Your task to perform on an android device: Clear all items from cart on walmart.com. Add "duracell triple a" to the cart on walmart.com Image 0: 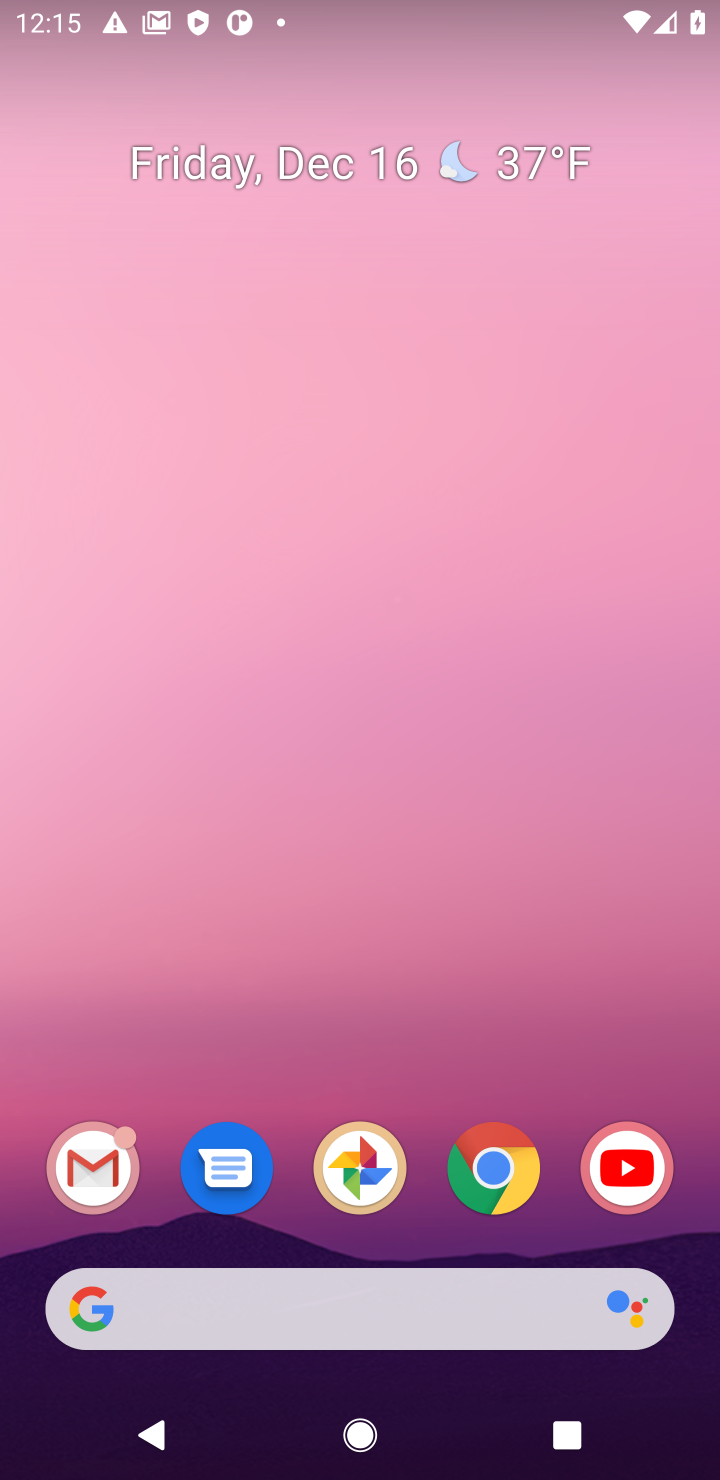
Step 0: click (513, 1138)
Your task to perform on an android device: Clear all items from cart on walmart.com. Add "duracell triple a" to the cart on walmart.com Image 1: 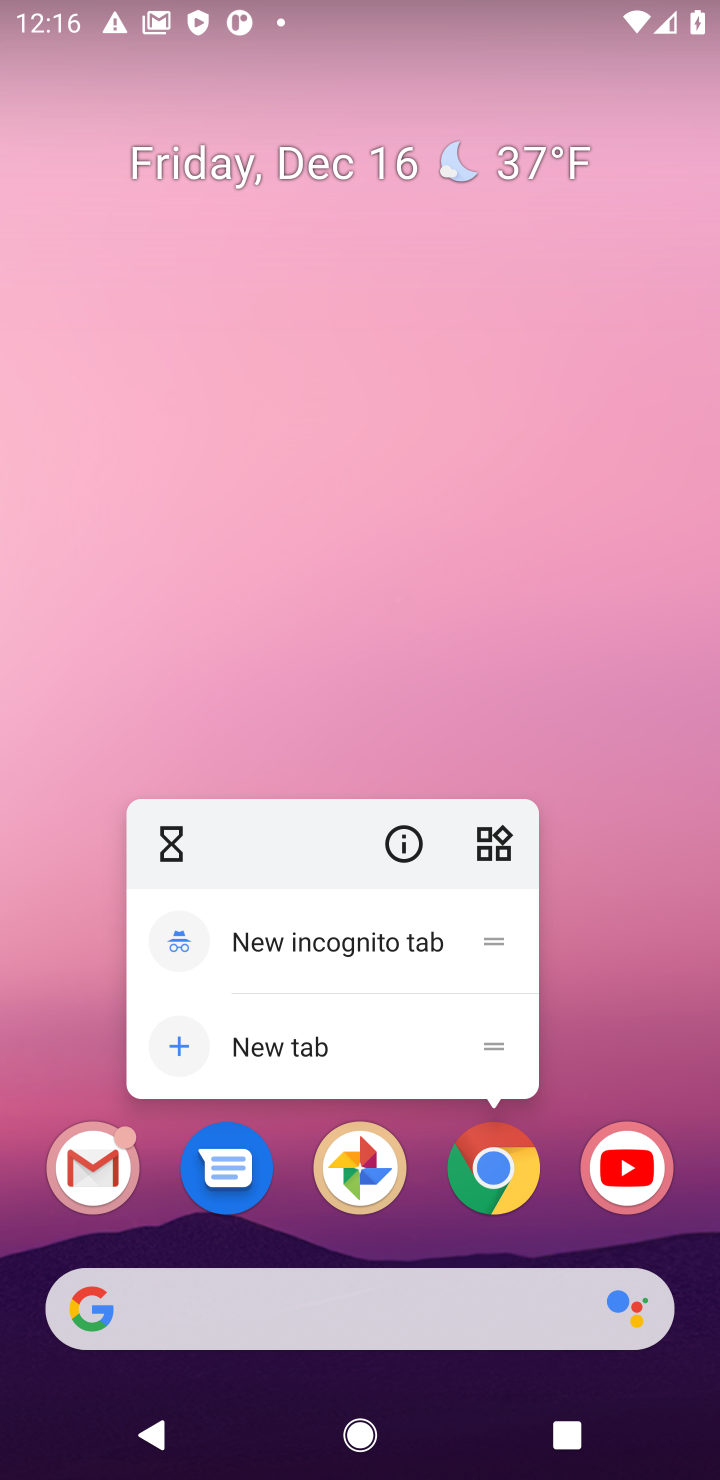
Step 1: click (510, 1151)
Your task to perform on an android device: Clear all items from cart on walmart.com. Add "duracell triple a" to the cart on walmart.com Image 2: 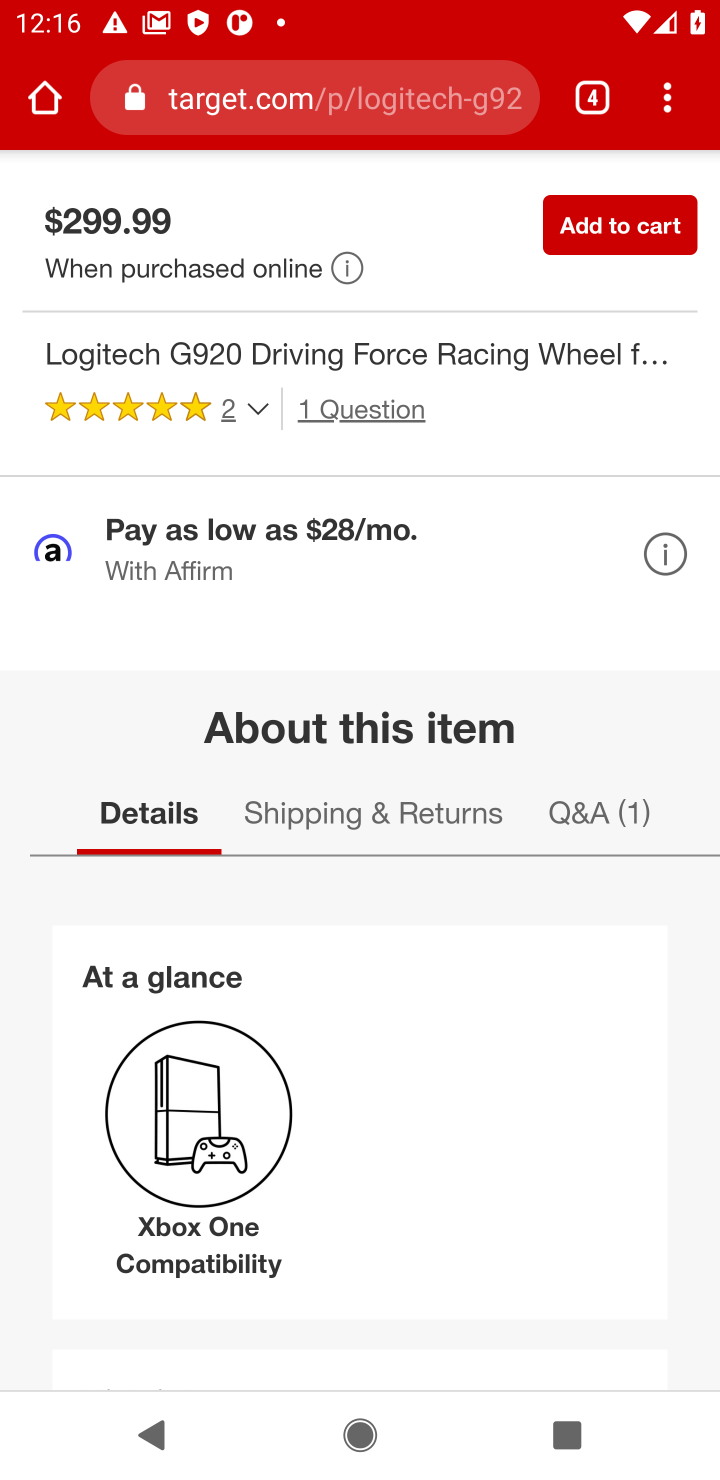
Step 2: click (369, 97)
Your task to perform on an android device: Clear all items from cart on walmart.com. Add "duracell triple a" to the cart on walmart.com Image 3: 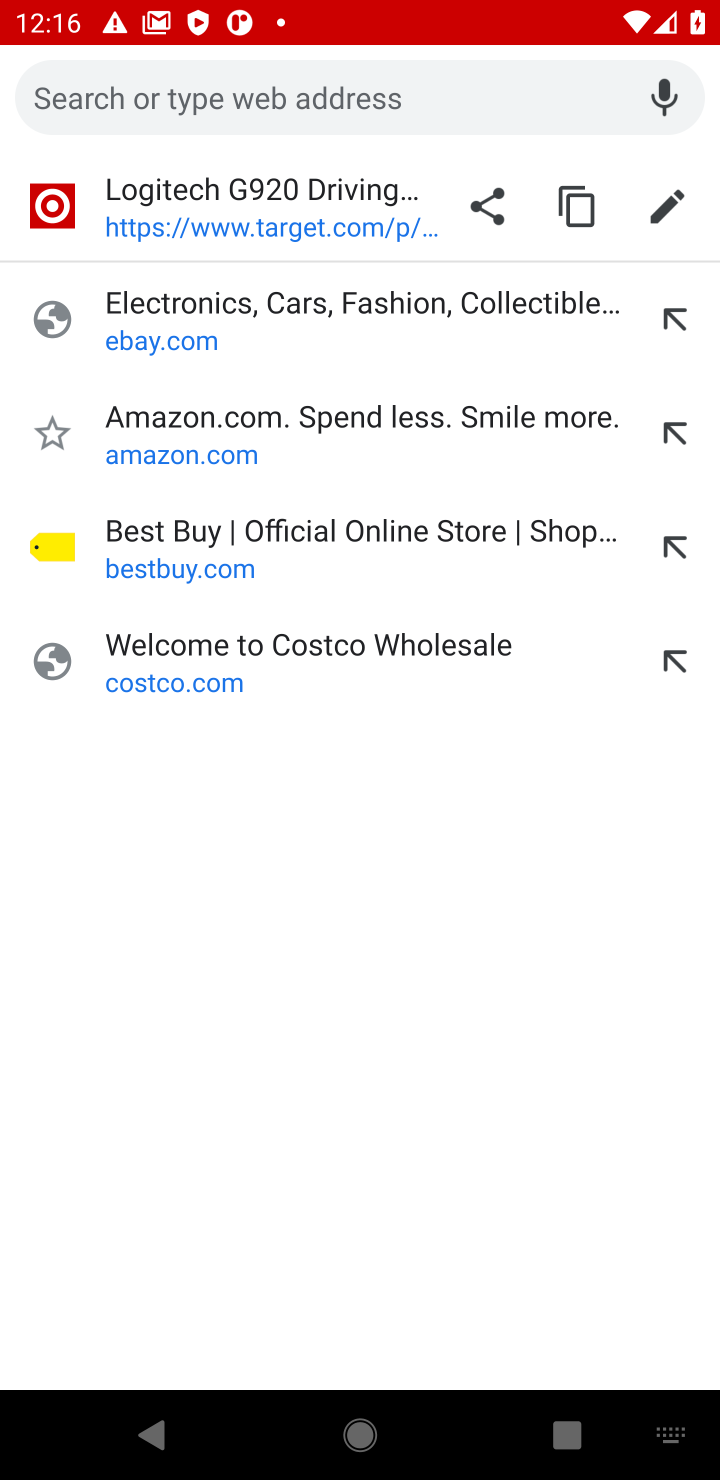
Step 3: type "walmart"
Your task to perform on an android device: Clear all items from cart on walmart.com. Add "duracell triple a" to the cart on walmart.com Image 4: 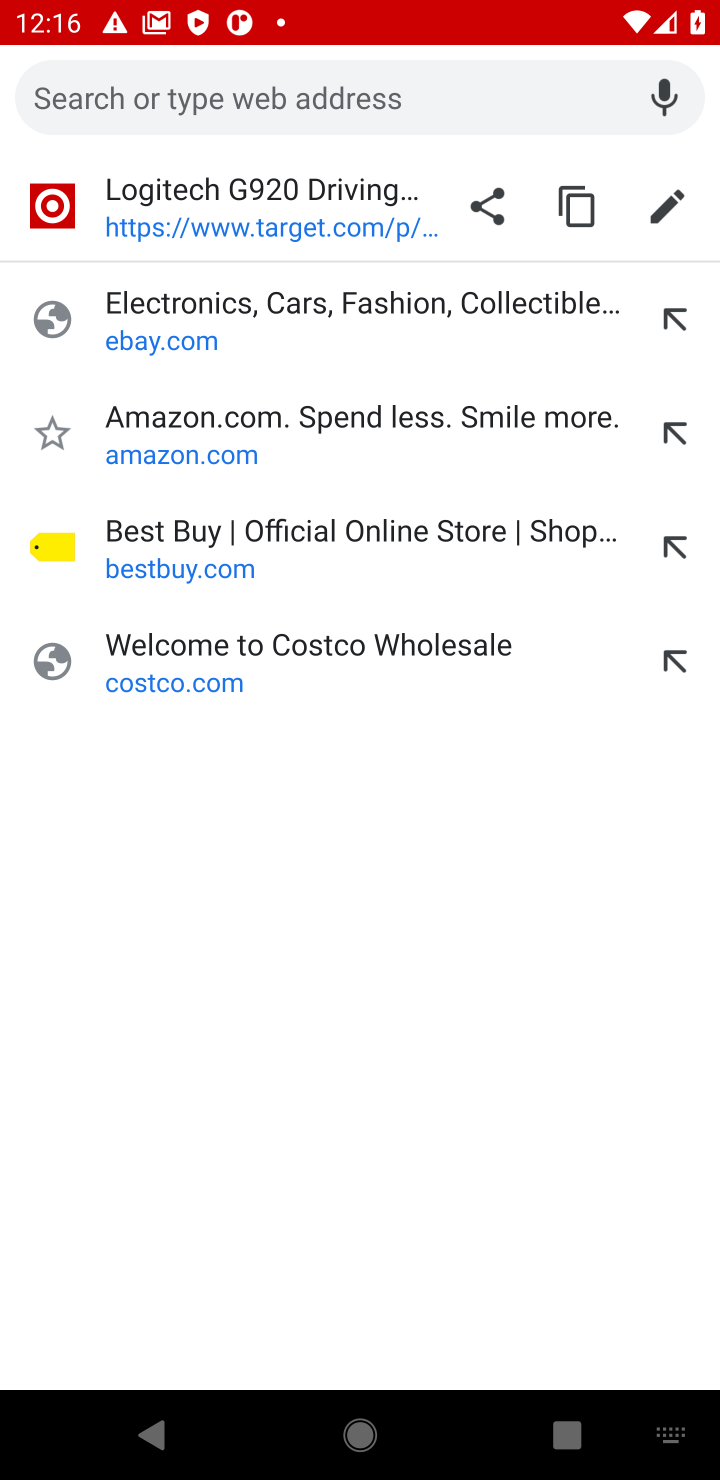
Step 4: click (239, 98)
Your task to perform on an android device: Clear all items from cart on walmart.com. Add "duracell triple a" to the cart on walmart.com Image 5: 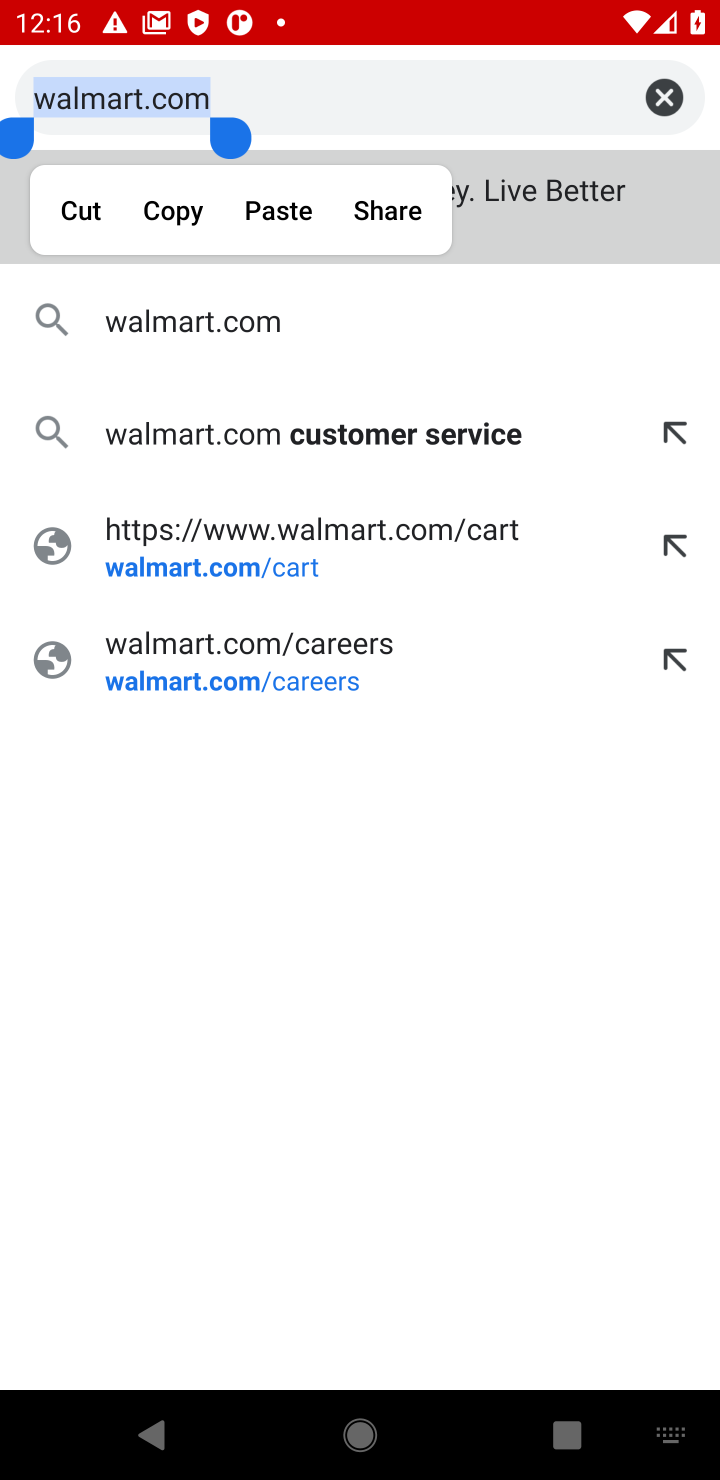
Step 5: click (406, 208)
Your task to perform on an android device: Clear all items from cart on walmart.com. Add "duracell triple a" to the cart on walmart.com Image 6: 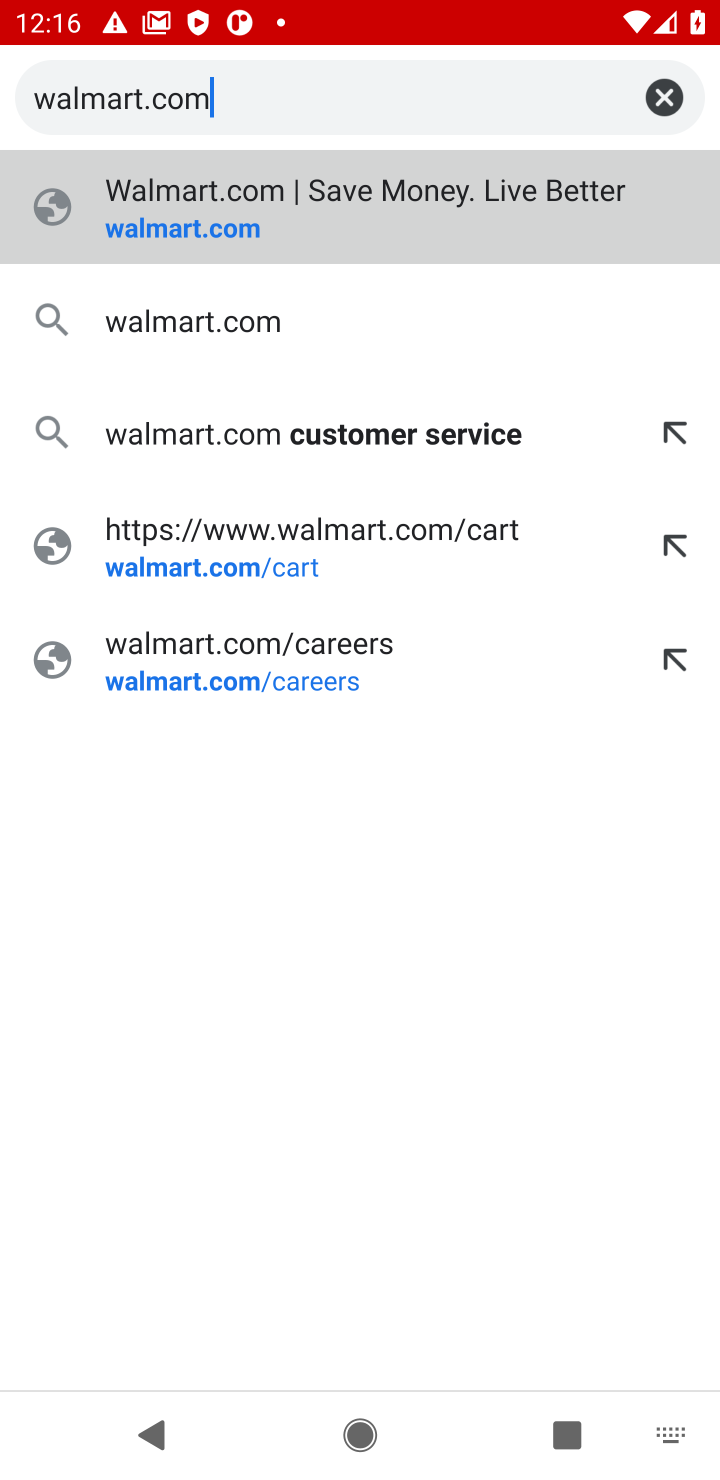
Step 6: click (610, 224)
Your task to perform on an android device: Clear all items from cart on walmart.com. Add "duracell triple a" to the cart on walmart.com Image 7: 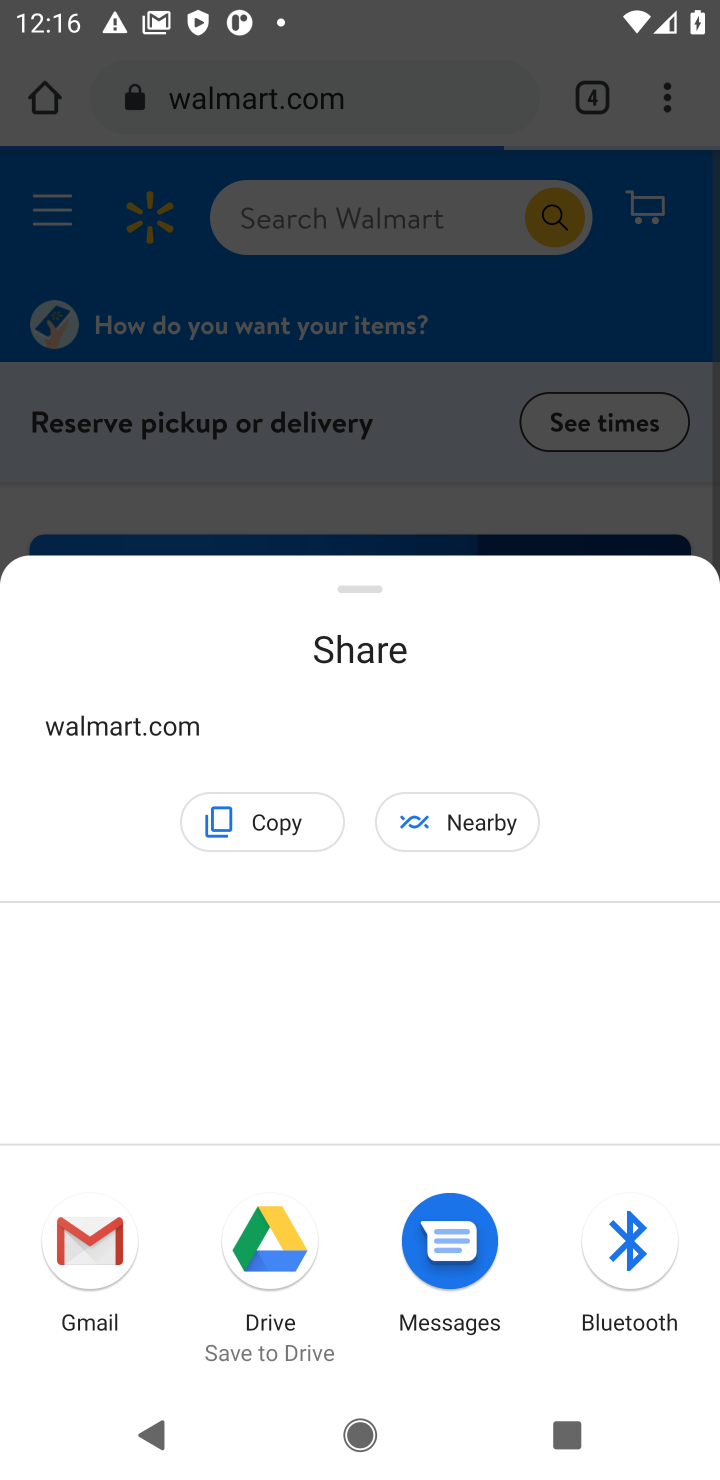
Step 7: click (512, 415)
Your task to perform on an android device: Clear all items from cart on walmart.com. Add "duracell triple a" to the cart on walmart.com Image 8: 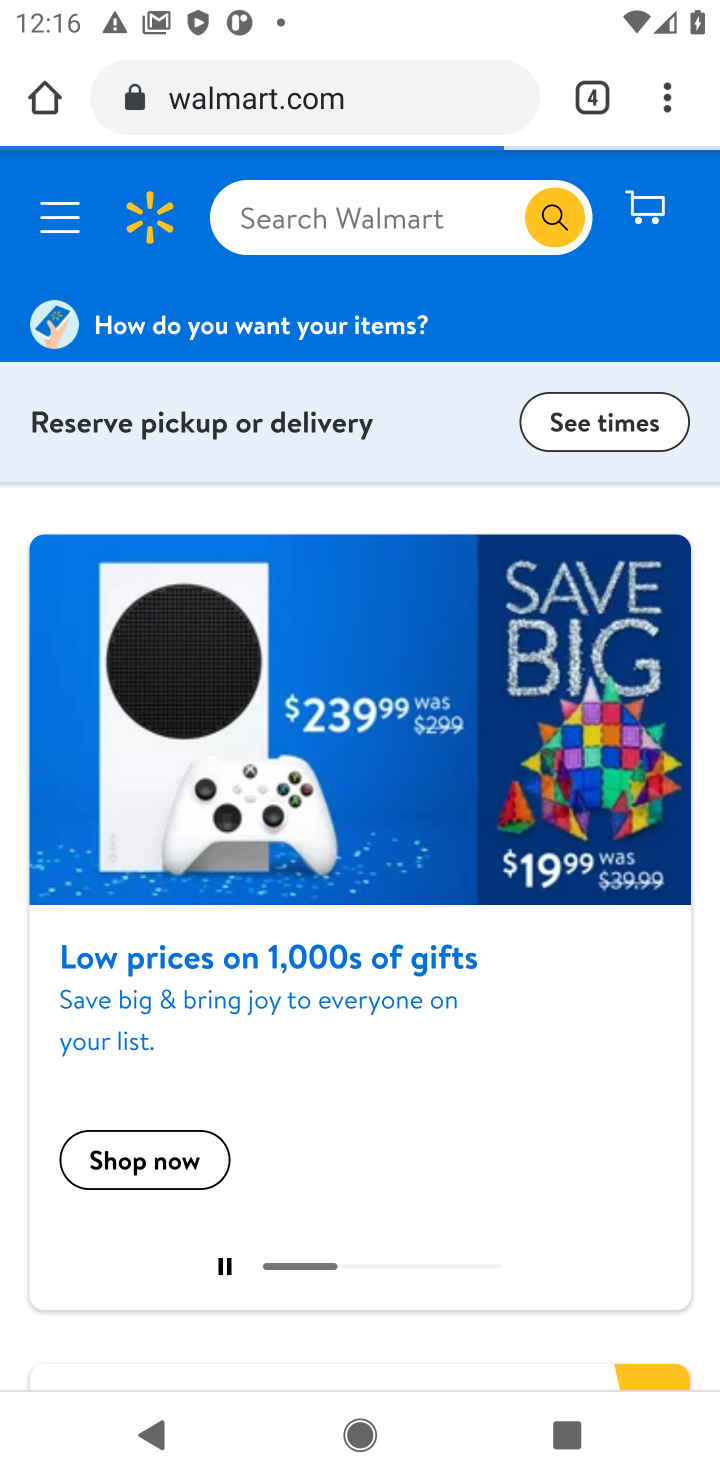
Step 8: click (403, 223)
Your task to perform on an android device: Clear all items from cart on walmart.com. Add "duracell triple a" to the cart on walmart.com Image 9: 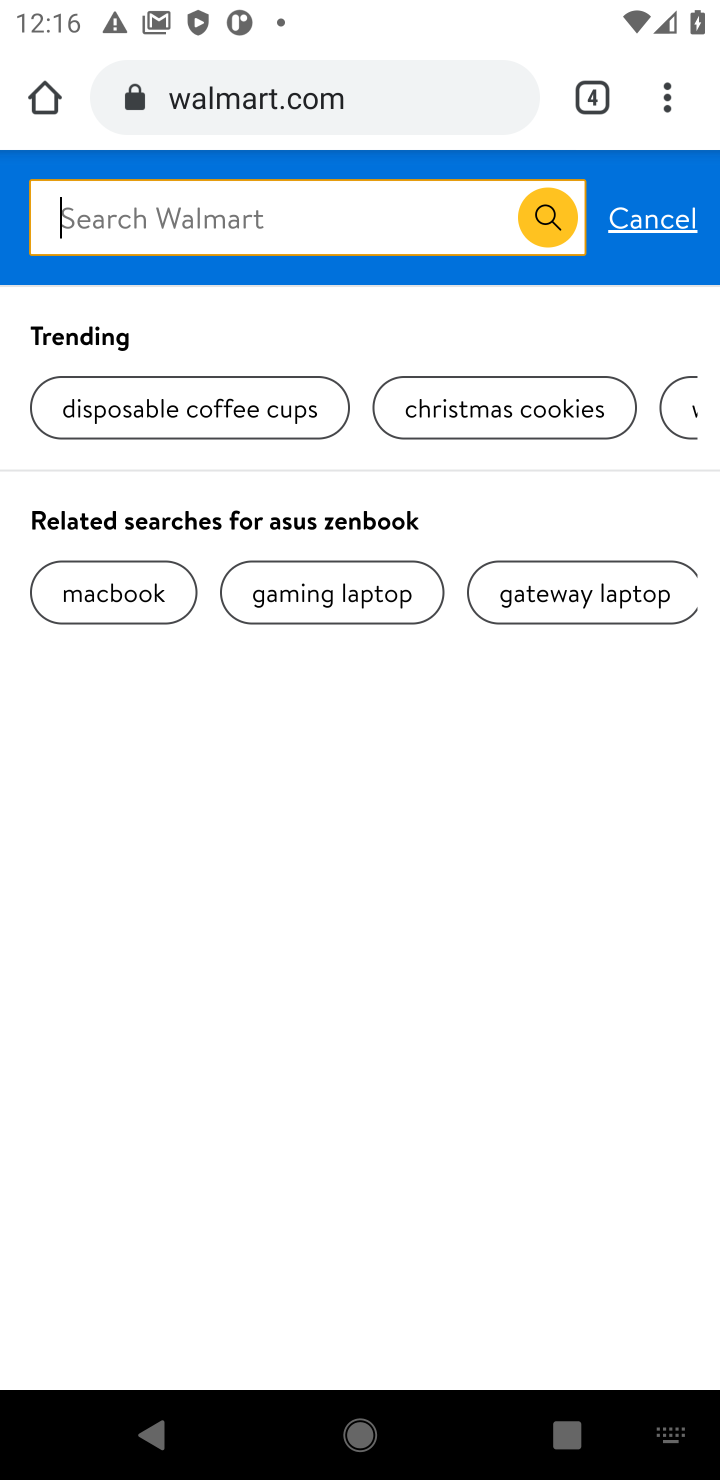
Step 9: click (647, 213)
Your task to perform on an android device: Clear all items from cart on walmart.com. Add "duracell triple a" to the cart on walmart.com Image 10: 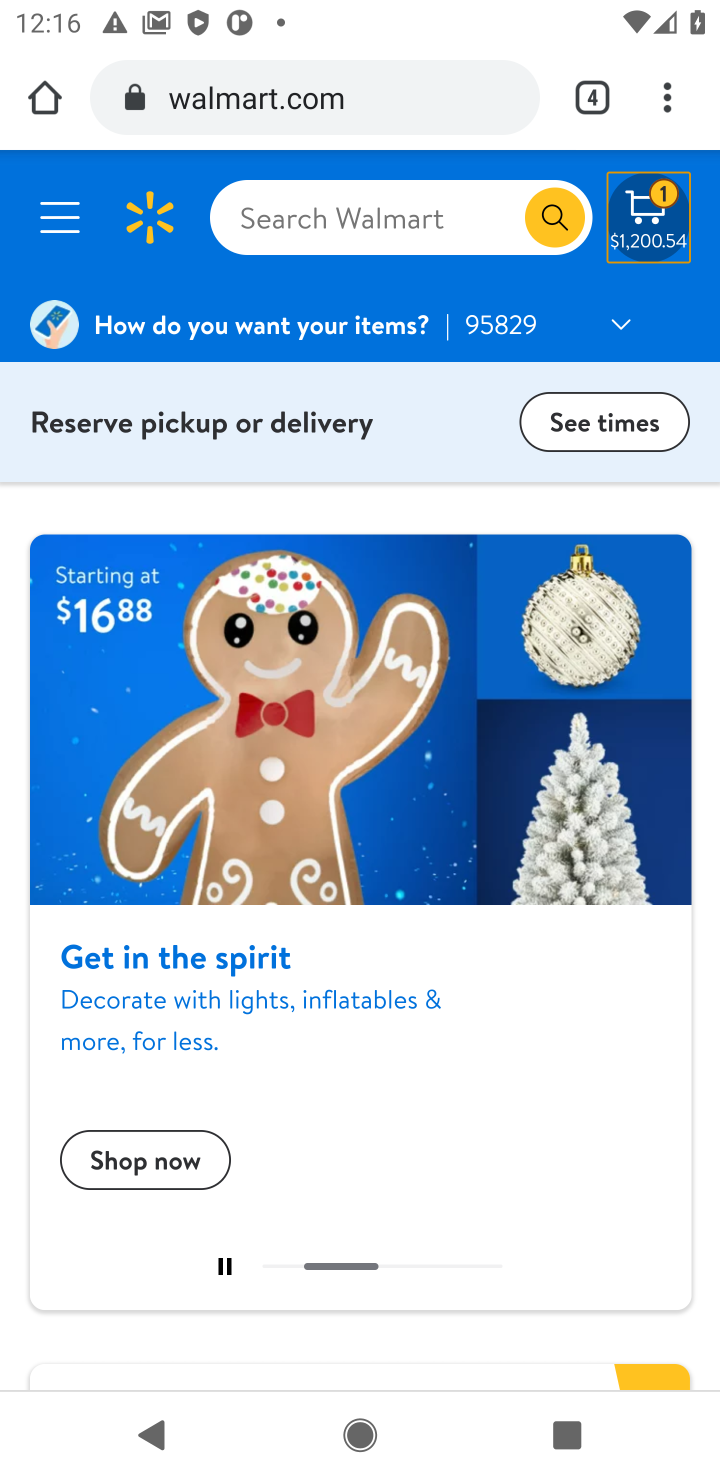
Step 10: click (658, 223)
Your task to perform on an android device: Clear all items from cart on walmart.com. Add "duracell triple a" to the cart on walmart.com Image 11: 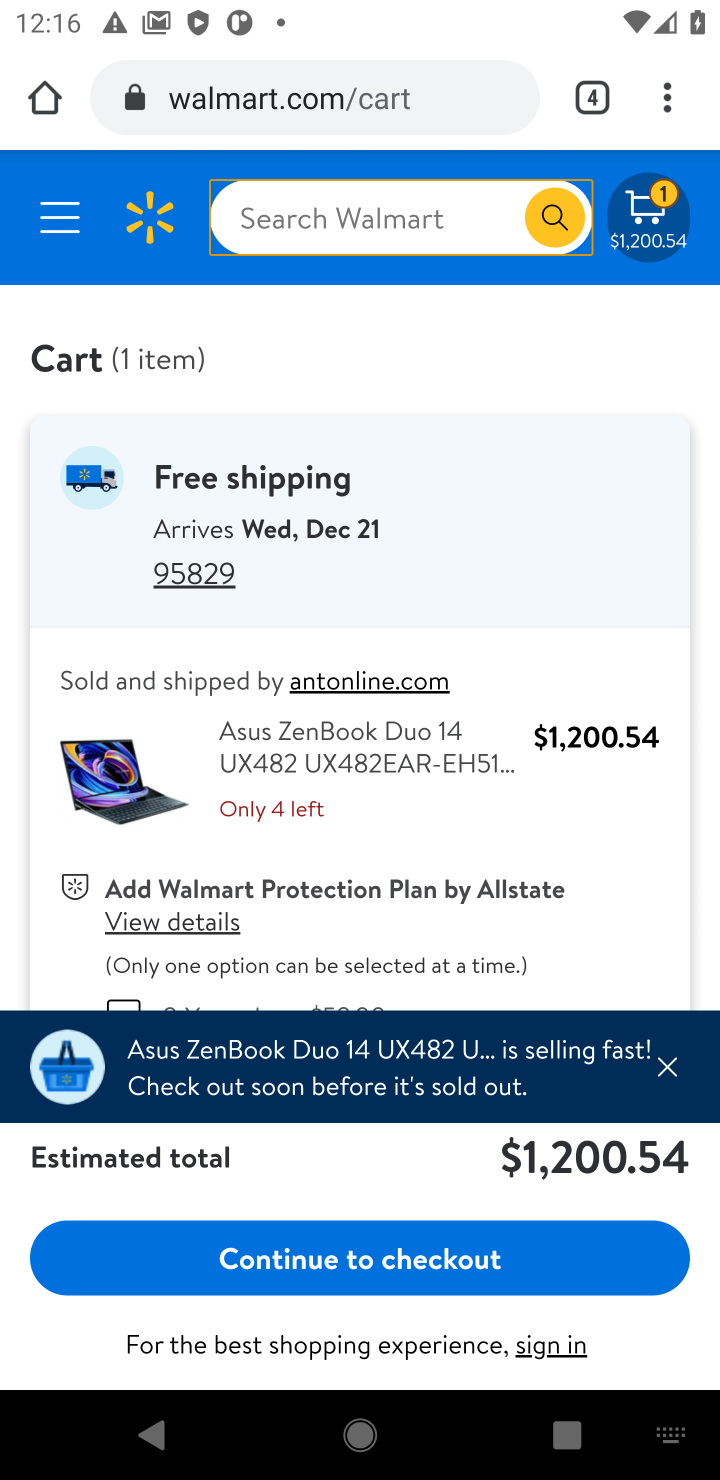
Step 11: drag from (328, 967) to (259, 578)
Your task to perform on an android device: Clear all items from cart on walmart.com. Add "duracell triple a" to the cart on walmart.com Image 12: 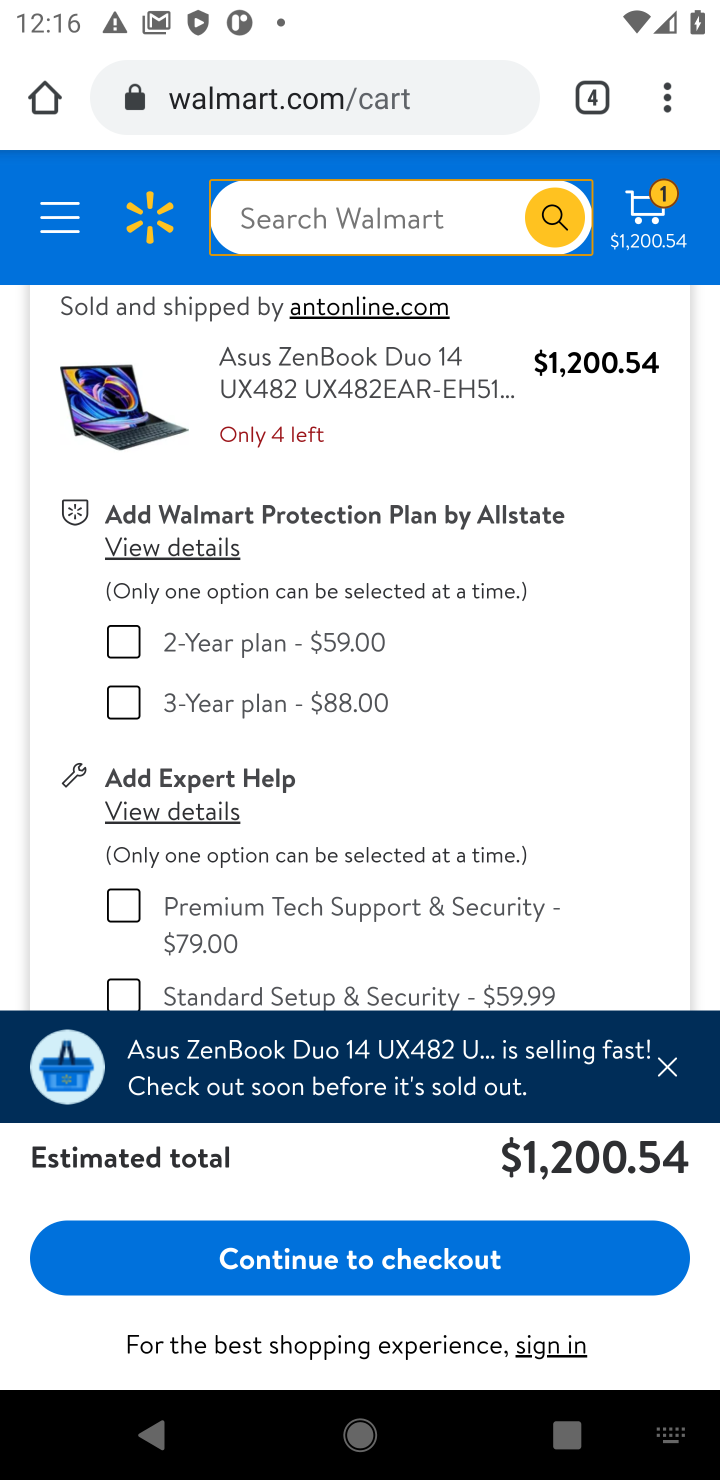
Step 12: drag from (397, 859) to (303, 270)
Your task to perform on an android device: Clear all items from cart on walmart.com. Add "duracell triple a" to the cart on walmart.com Image 13: 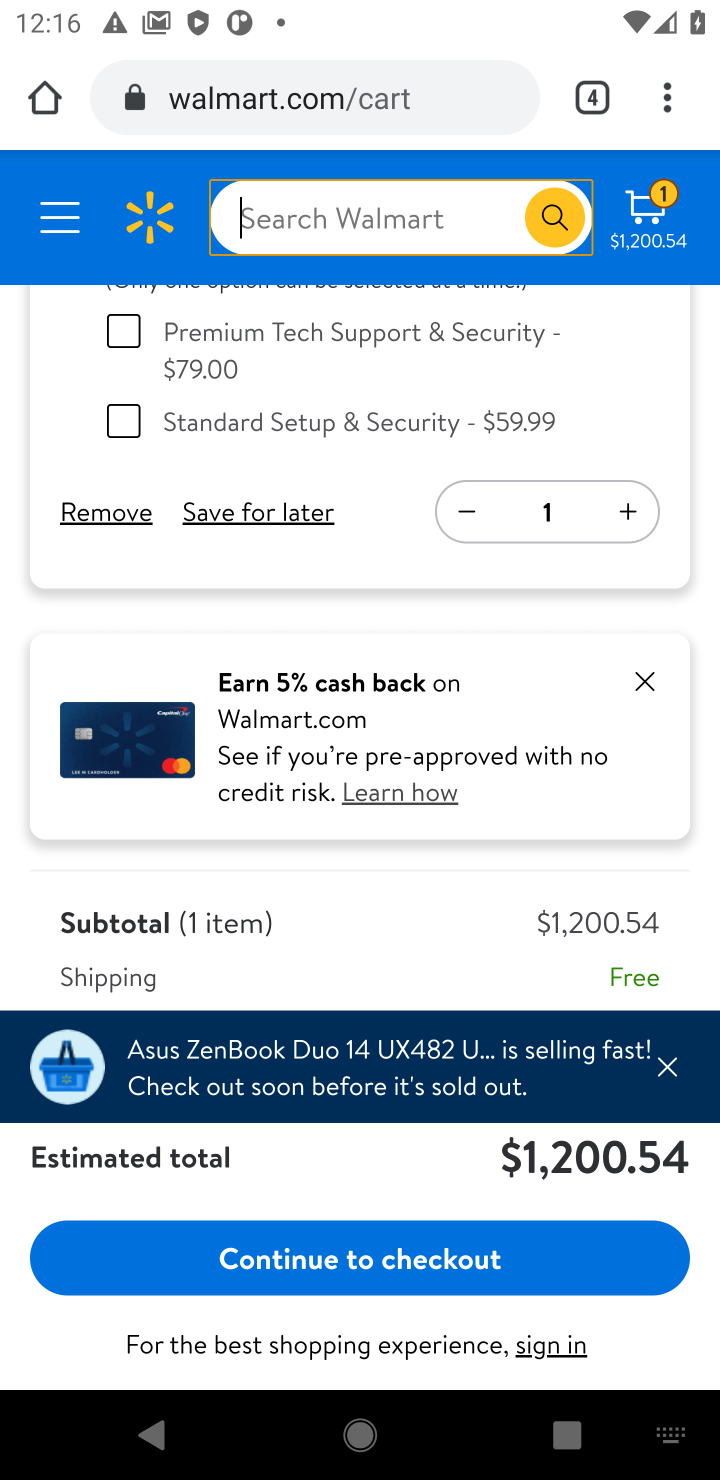
Step 13: click (90, 515)
Your task to perform on an android device: Clear all items from cart on walmart.com. Add "duracell triple a" to the cart on walmart.com Image 14: 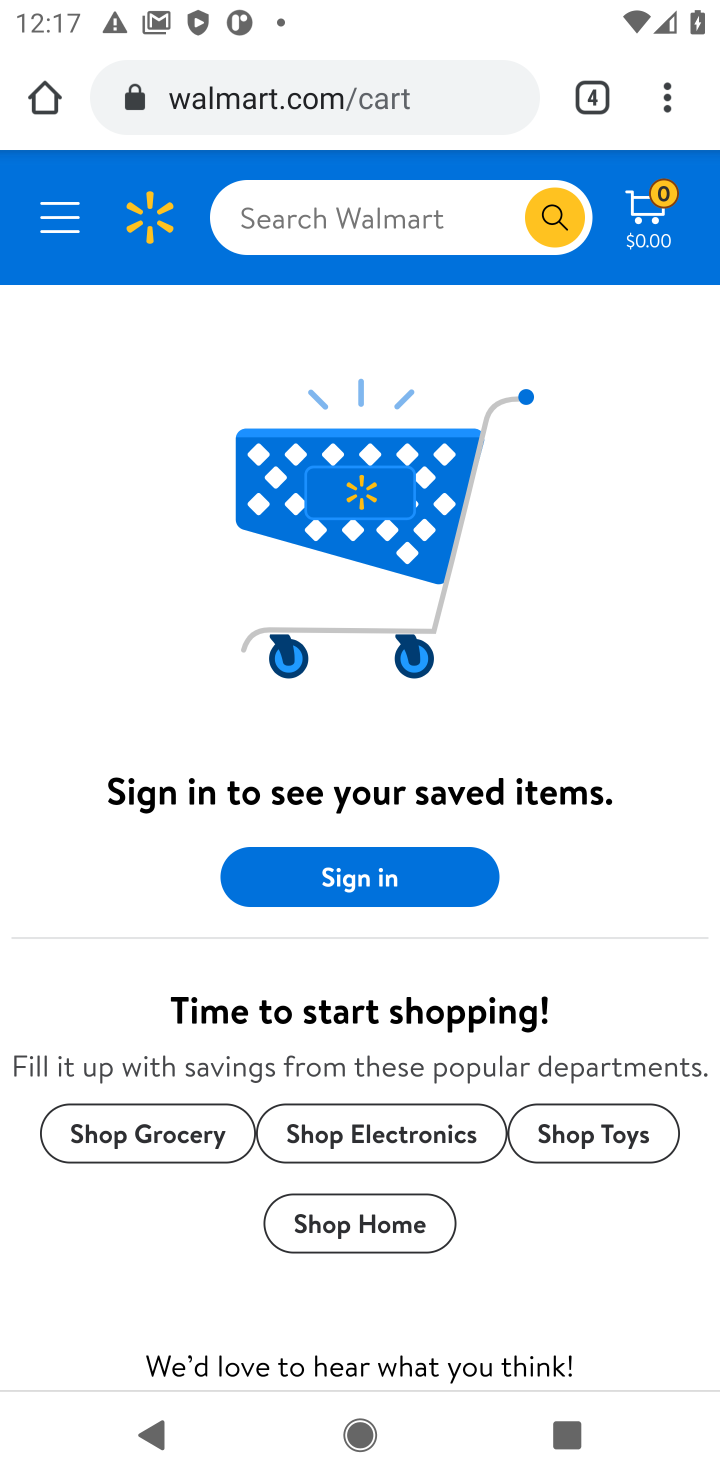
Step 14: click (418, 221)
Your task to perform on an android device: Clear all items from cart on walmart.com. Add "duracell triple a" to the cart on walmart.com Image 15: 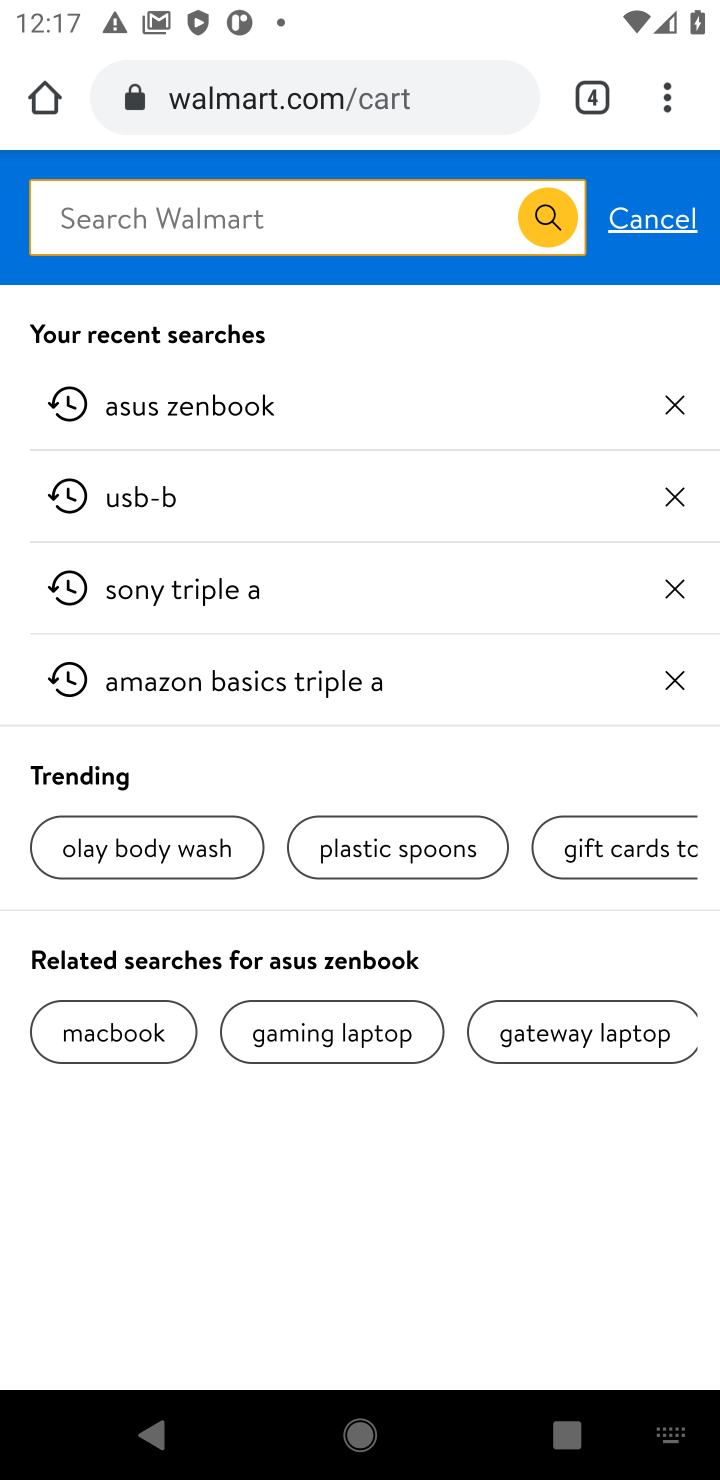
Step 15: type "duracell triple a"
Your task to perform on an android device: Clear all items from cart on walmart.com. Add "duracell triple a" to the cart on walmart.com Image 16: 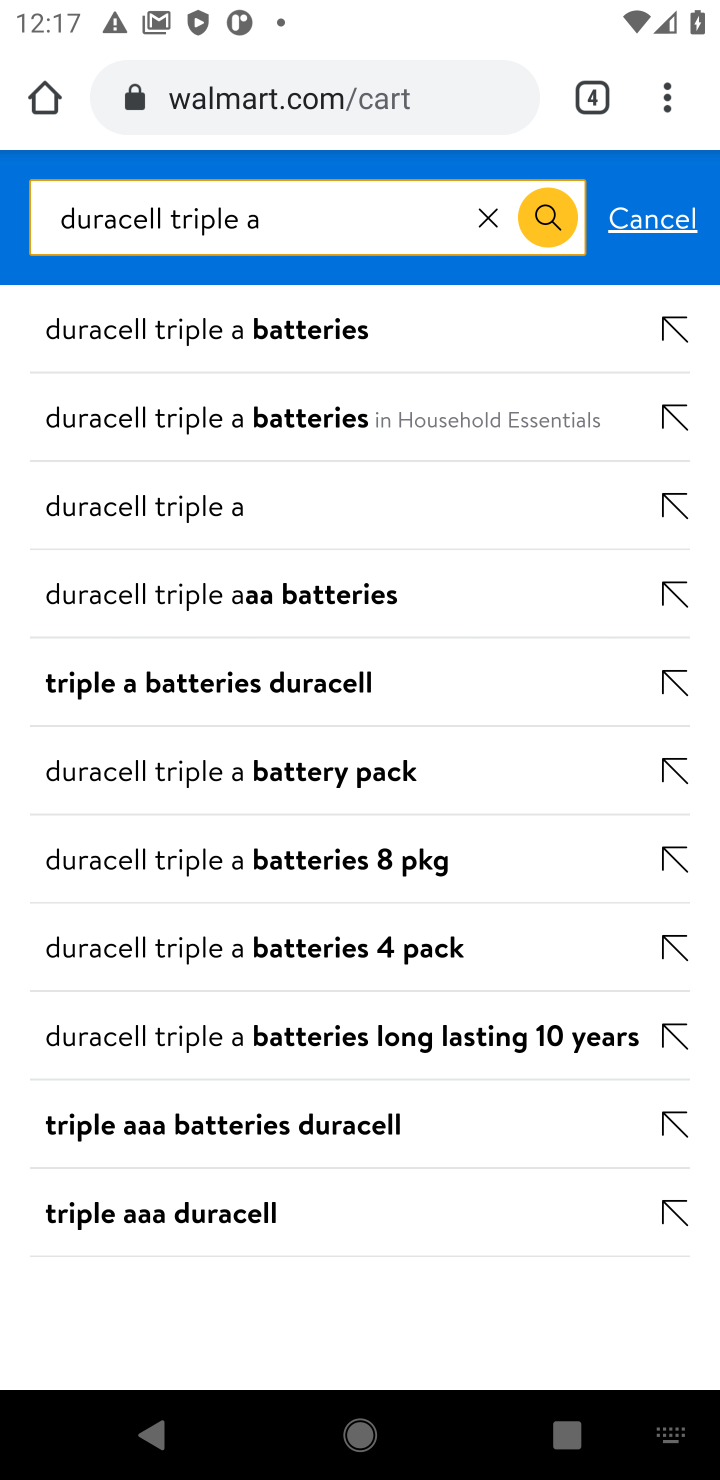
Step 16: click (339, 321)
Your task to perform on an android device: Clear all items from cart on walmart.com. Add "duracell triple a" to the cart on walmart.com Image 17: 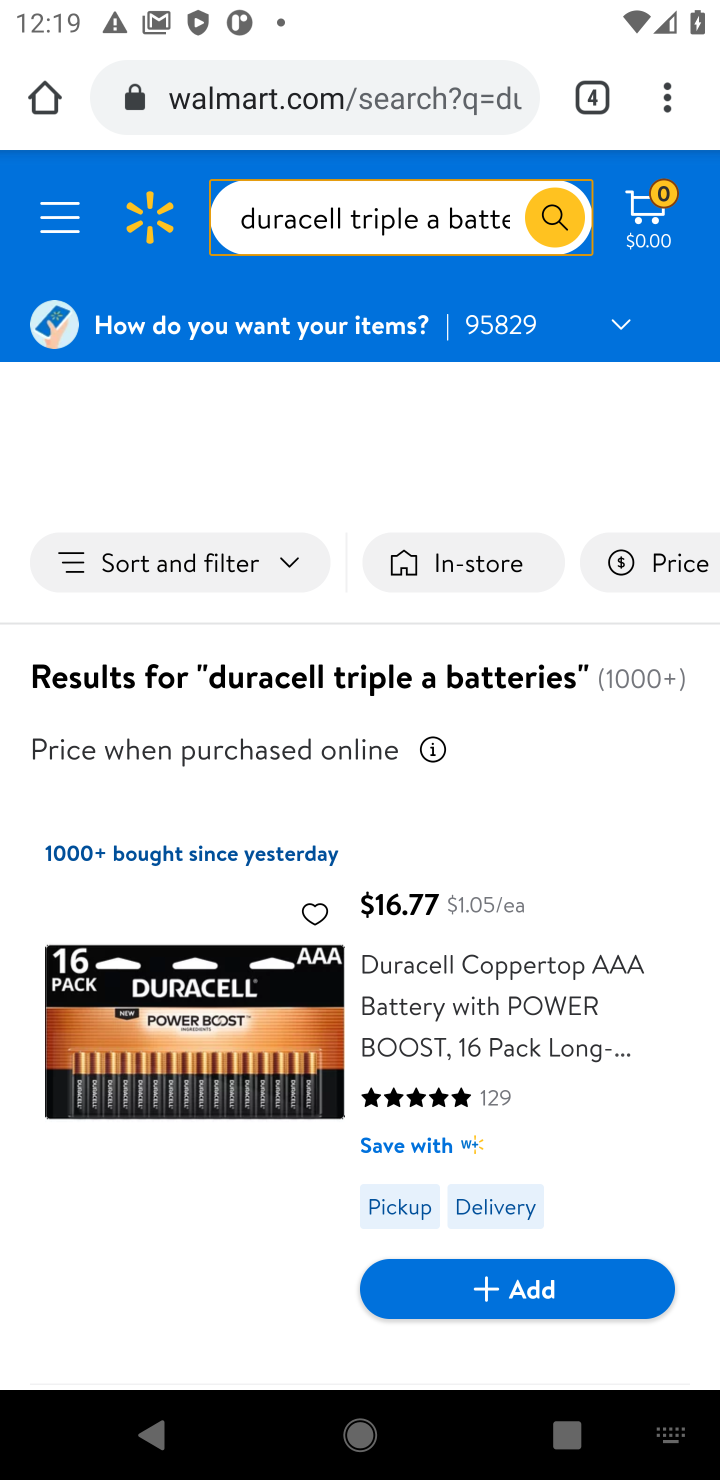
Step 17: click (511, 1283)
Your task to perform on an android device: Clear all items from cart on walmart.com. Add "duracell triple a" to the cart on walmart.com Image 18: 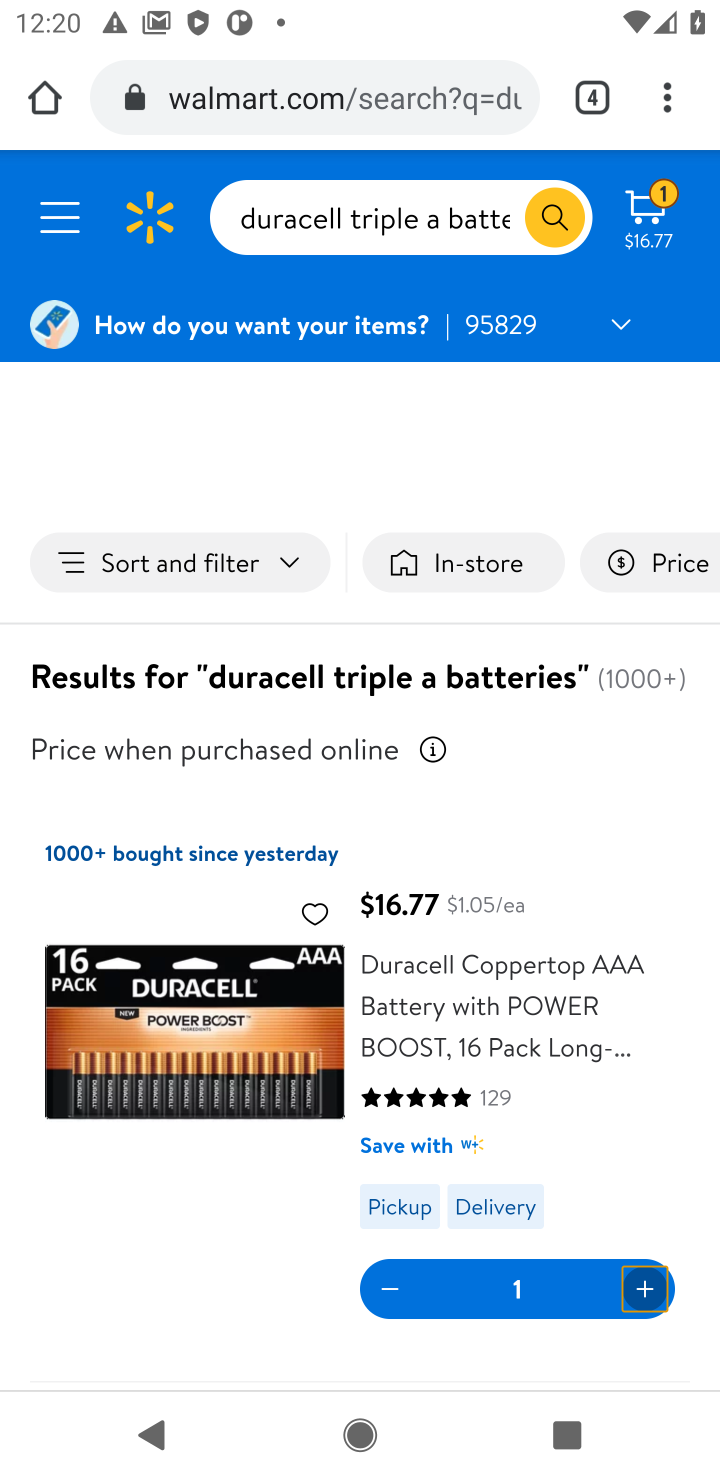
Step 18: task complete